Your task to perform on an android device: delete browsing data in the chrome app Image 0: 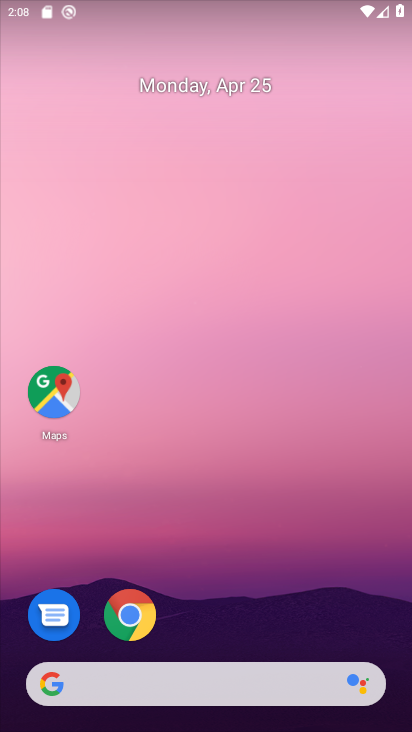
Step 0: click (132, 616)
Your task to perform on an android device: delete browsing data in the chrome app Image 1: 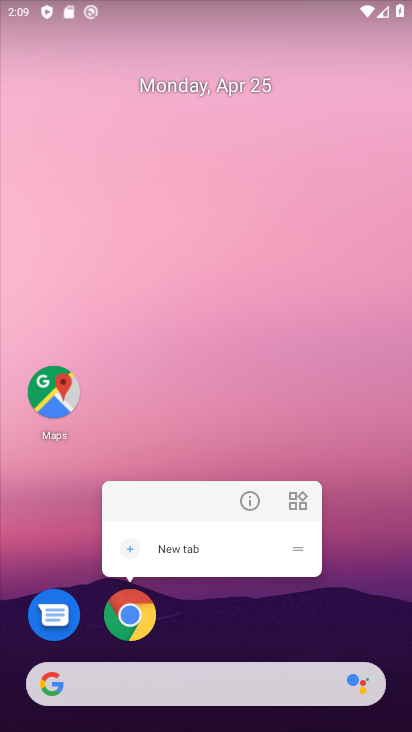
Step 1: click (130, 608)
Your task to perform on an android device: delete browsing data in the chrome app Image 2: 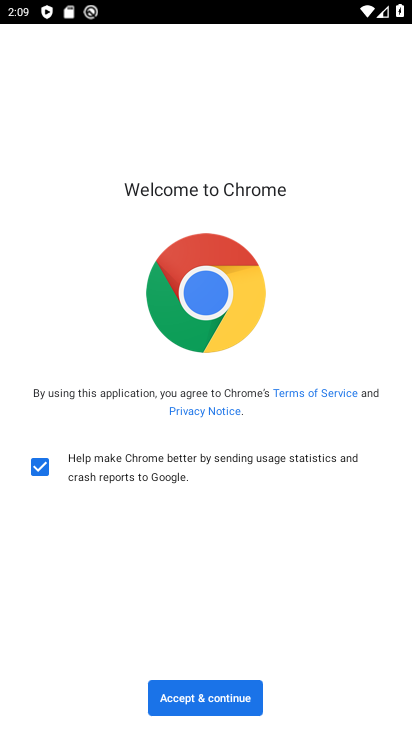
Step 2: click (215, 701)
Your task to perform on an android device: delete browsing data in the chrome app Image 3: 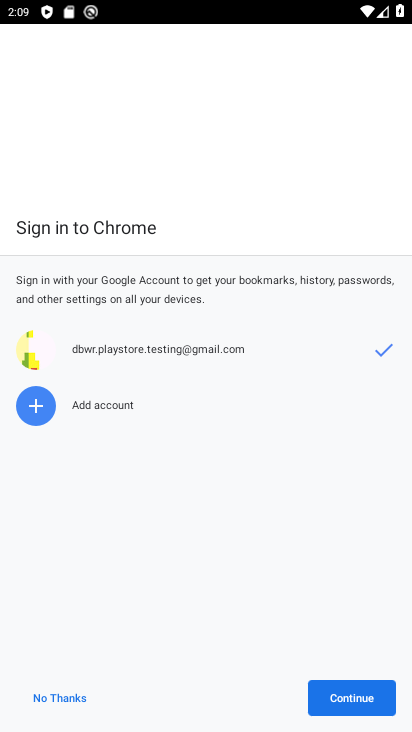
Step 3: click (358, 696)
Your task to perform on an android device: delete browsing data in the chrome app Image 4: 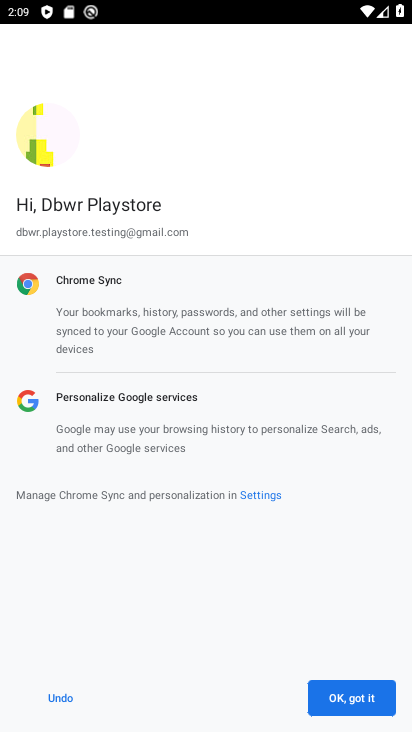
Step 4: click (358, 696)
Your task to perform on an android device: delete browsing data in the chrome app Image 5: 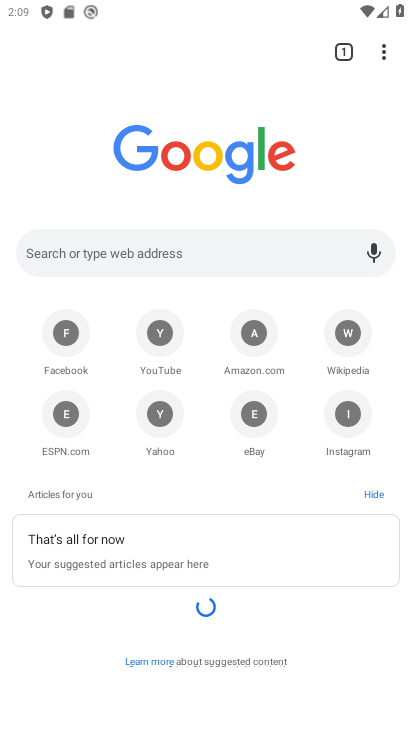
Step 5: task complete